Your task to perform on an android device: Check the weather Image 0: 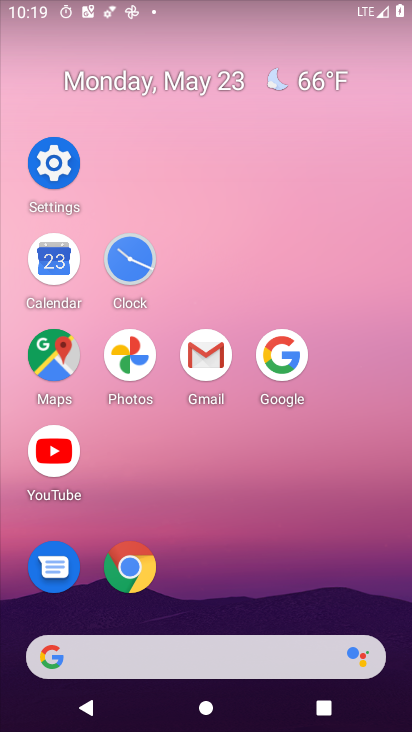
Step 0: click (286, 363)
Your task to perform on an android device: Check the weather Image 1: 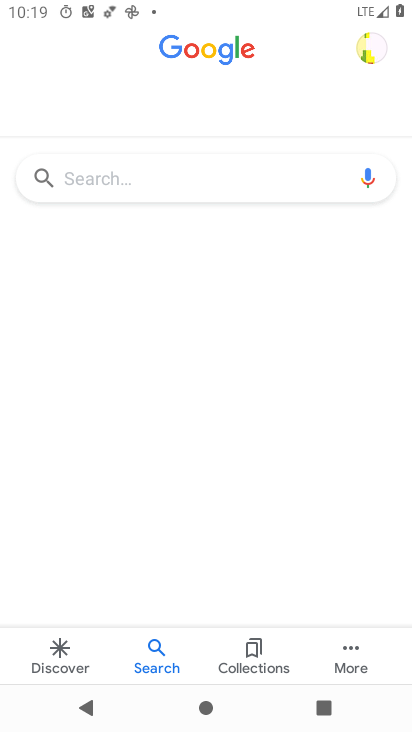
Step 1: click (188, 171)
Your task to perform on an android device: Check the weather Image 2: 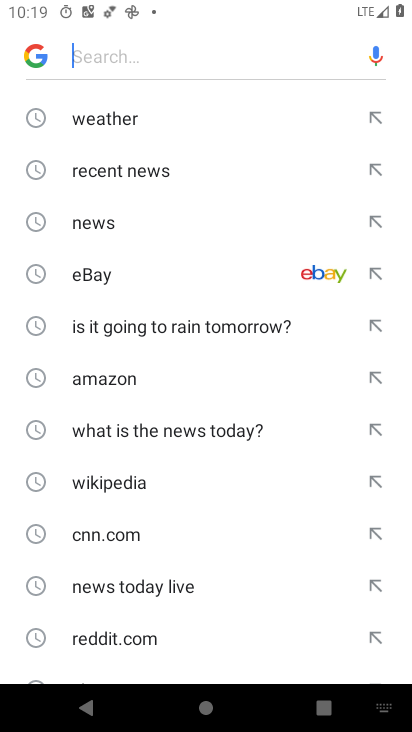
Step 2: click (144, 118)
Your task to perform on an android device: Check the weather Image 3: 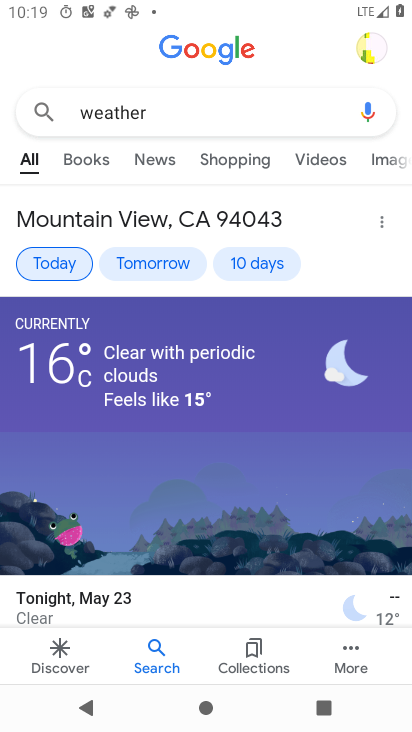
Step 3: task complete